Your task to perform on an android device: Go to sound settings Image 0: 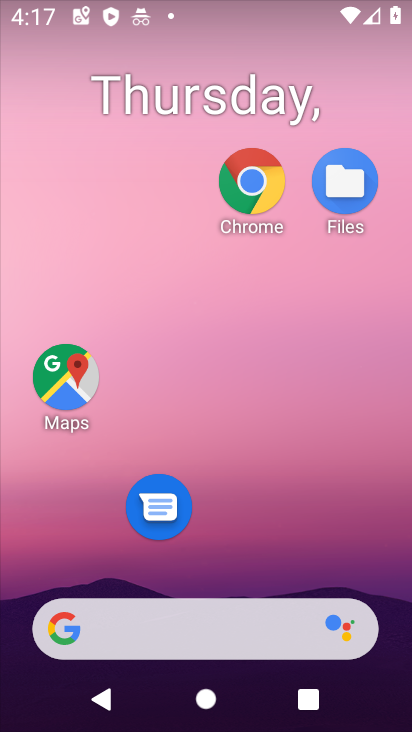
Step 0: drag from (273, 699) to (231, 317)
Your task to perform on an android device: Go to sound settings Image 1: 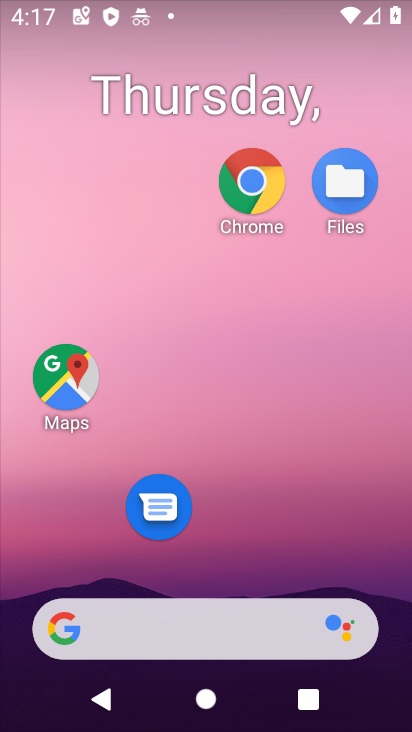
Step 1: drag from (235, 562) to (236, 125)
Your task to perform on an android device: Go to sound settings Image 2: 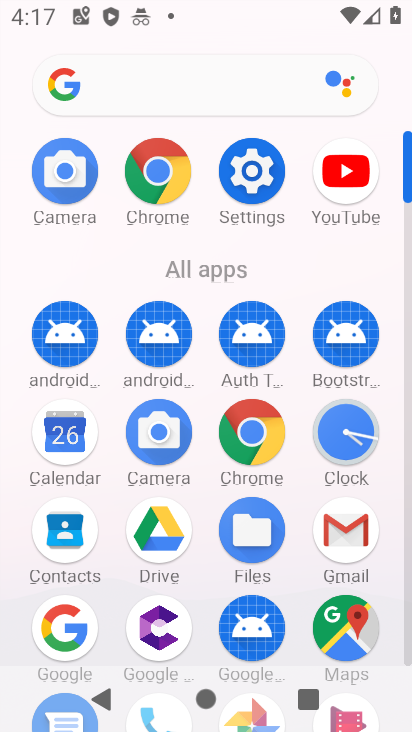
Step 2: click (244, 159)
Your task to perform on an android device: Go to sound settings Image 3: 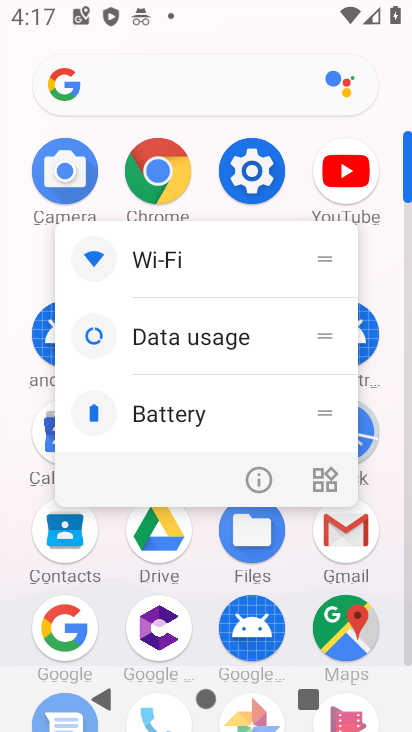
Step 3: click (244, 163)
Your task to perform on an android device: Go to sound settings Image 4: 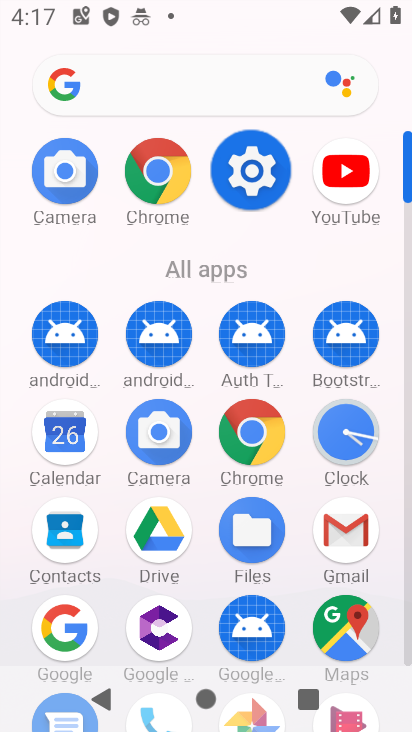
Step 4: click (247, 161)
Your task to perform on an android device: Go to sound settings Image 5: 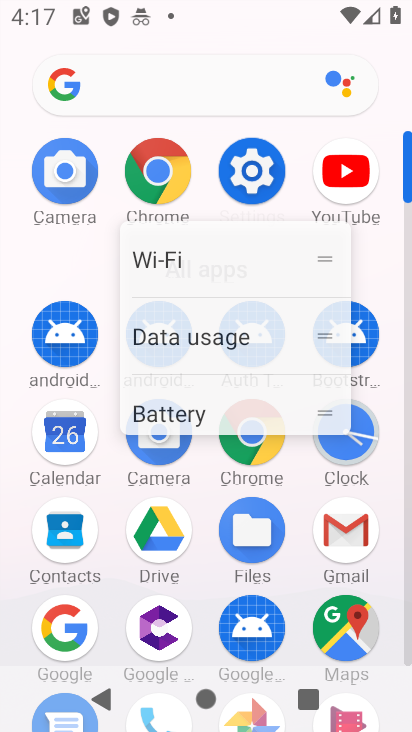
Step 5: click (248, 161)
Your task to perform on an android device: Go to sound settings Image 6: 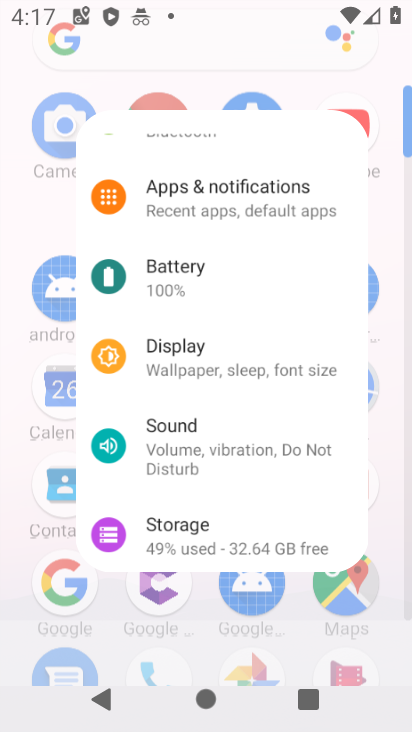
Step 6: click (249, 162)
Your task to perform on an android device: Go to sound settings Image 7: 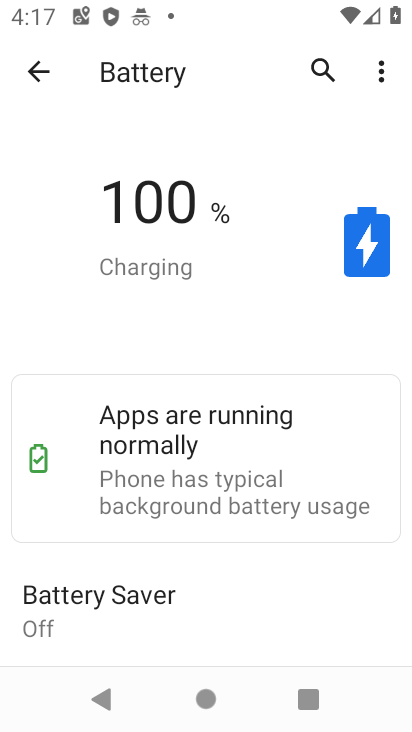
Step 7: click (31, 71)
Your task to perform on an android device: Go to sound settings Image 8: 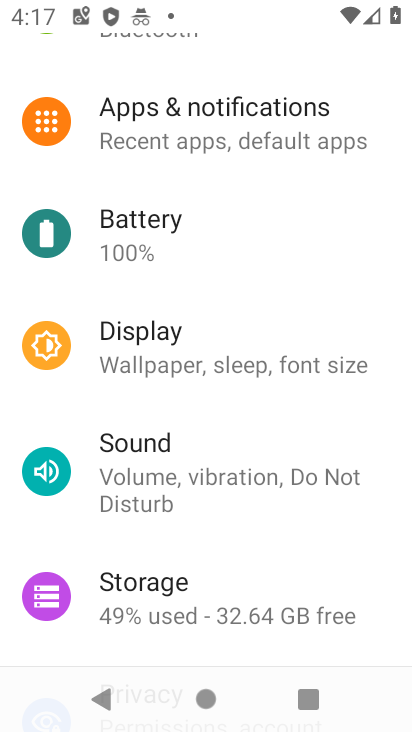
Step 8: click (143, 469)
Your task to perform on an android device: Go to sound settings Image 9: 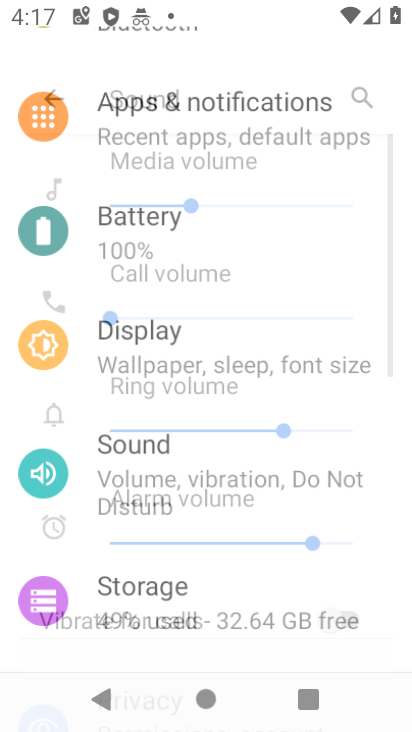
Step 9: click (137, 465)
Your task to perform on an android device: Go to sound settings Image 10: 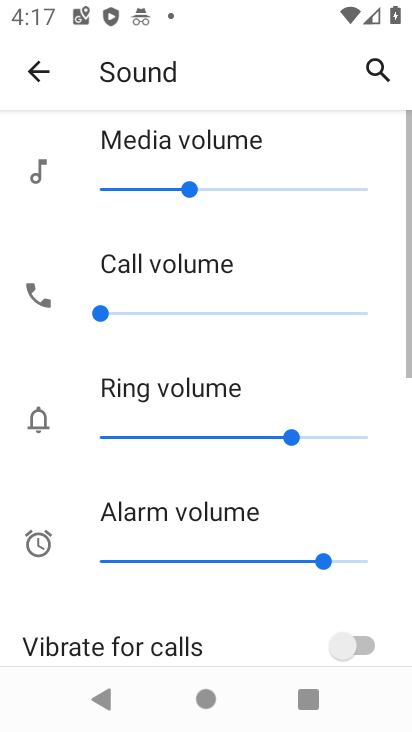
Step 10: click (141, 465)
Your task to perform on an android device: Go to sound settings Image 11: 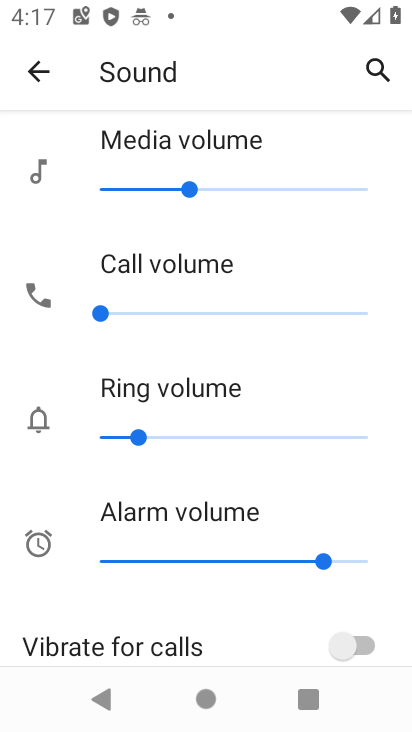
Step 11: click (157, 484)
Your task to perform on an android device: Go to sound settings Image 12: 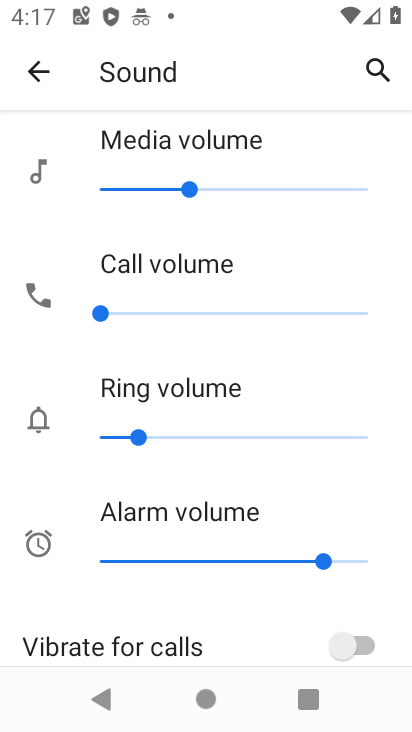
Step 12: task complete